Your task to perform on an android device: turn on the 24-hour format for clock Image 0: 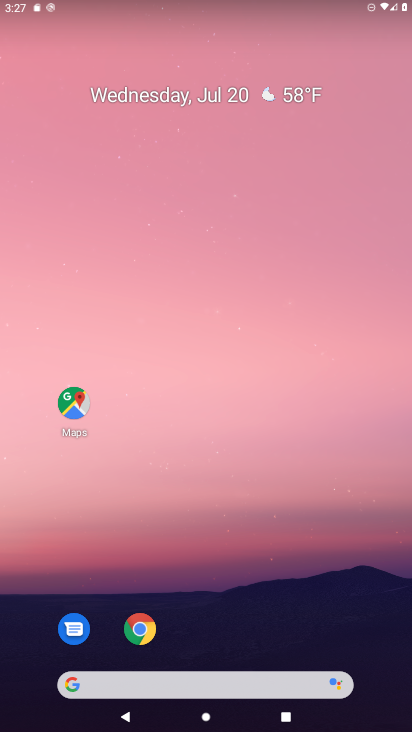
Step 0: drag from (300, 638) to (249, 166)
Your task to perform on an android device: turn on the 24-hour format for clock Image 1: 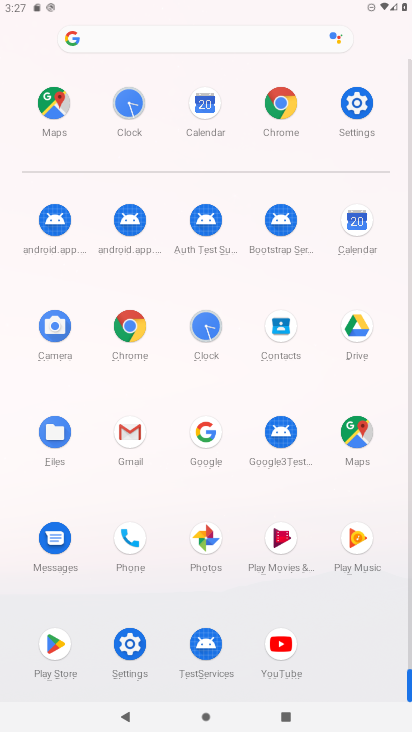
Step 1: click (198, 319)
Your task to perform on an android device: turn on the 24-hour format for clock Image 2: 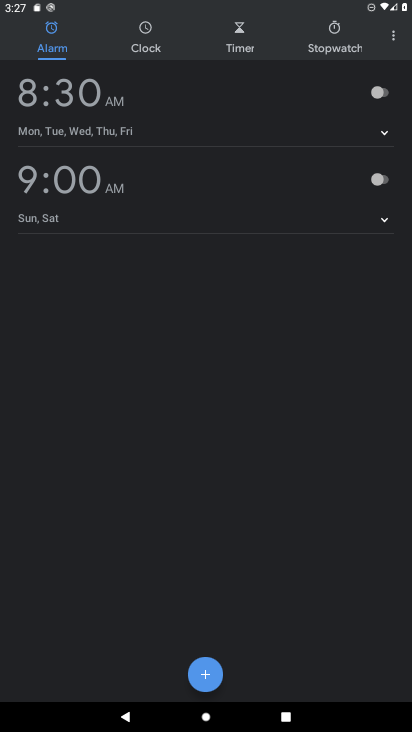
Step 2: click (395, 45)
Your task to perform on an android device: turn on the 24-hour format for clock Image 3: 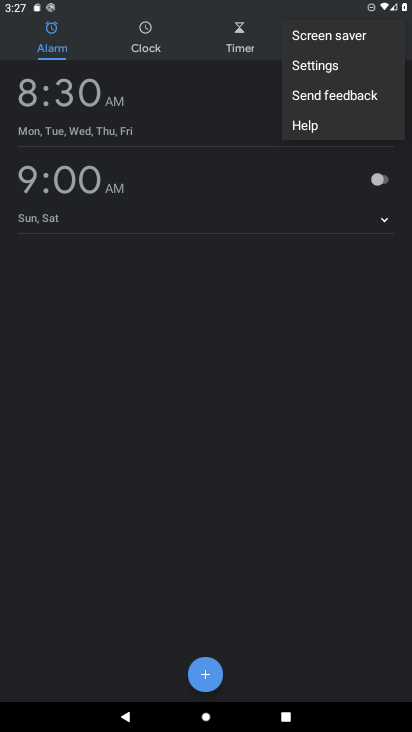
Step 3: click (334, 75)
Your task to perform on an android device: turn on the 24-hour format for clock Image 4: 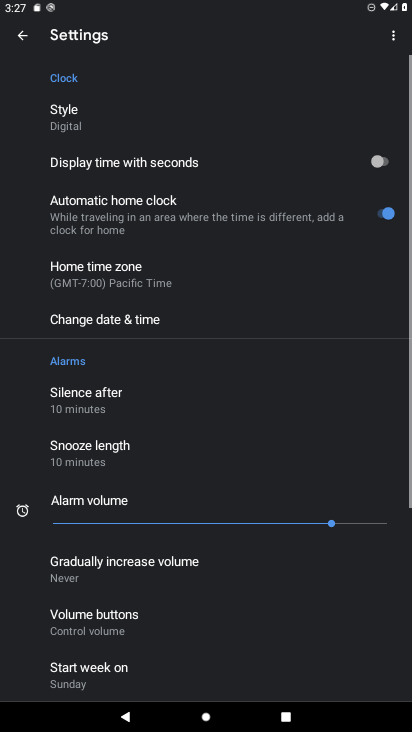
Step 4: drag from (347, 607) to (396, 259)
Your task to perform on an android device: turn on the 24-hour format for clock Image 5: 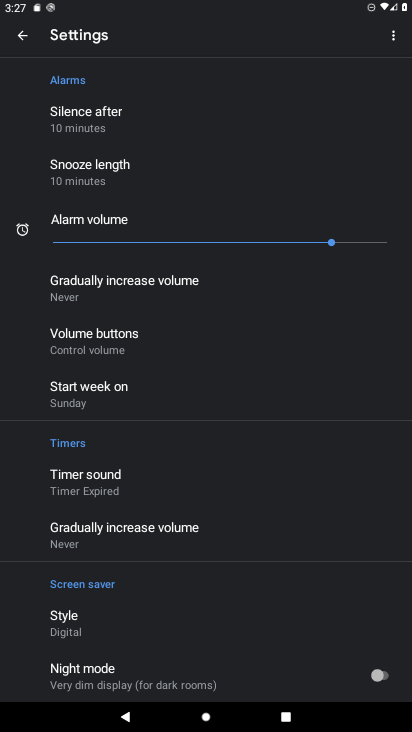
Step 5: drag from (107, 134) to (96, 452)
Your task to perform on an android device: turn on the 24-hour format for clock Image 6: 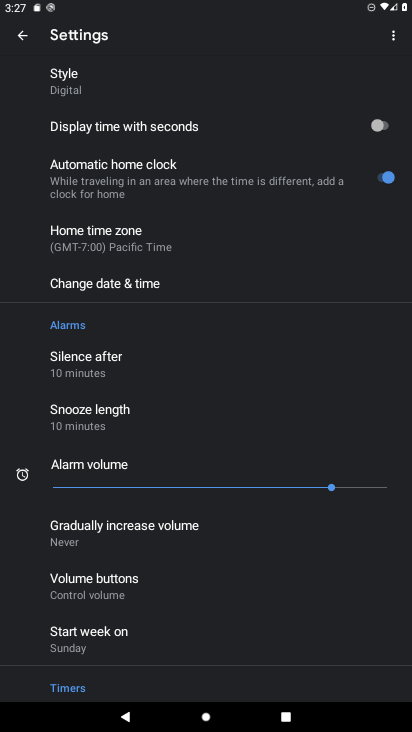
Step 6: click (118, 293)
Your task to perform on an android device: turn on the 24-hour format for clock Image 7: 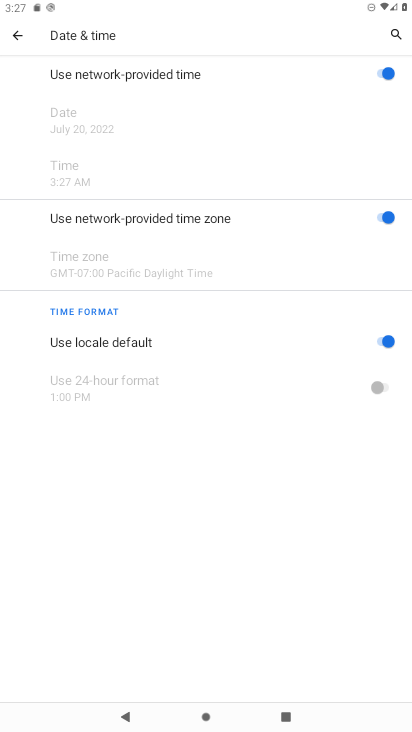
Step 7: click (387, 338)
Your task to perform on an android device: turn on the 24-hour format for clock Image 8: 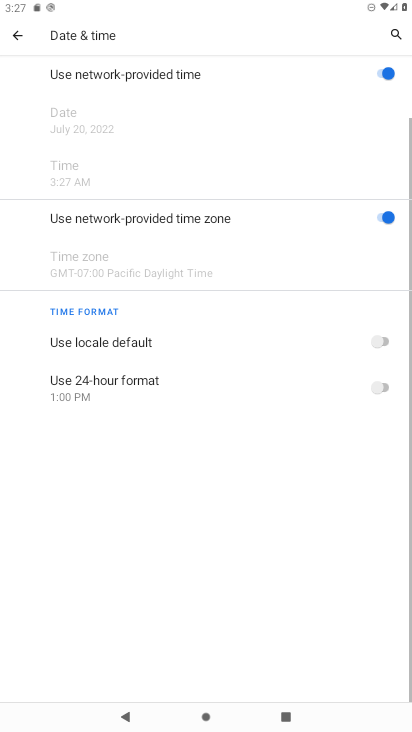
Step 8: click (377, 381)
Your task to perform on an android device: turn on the 24-hour format for clock Image 9: 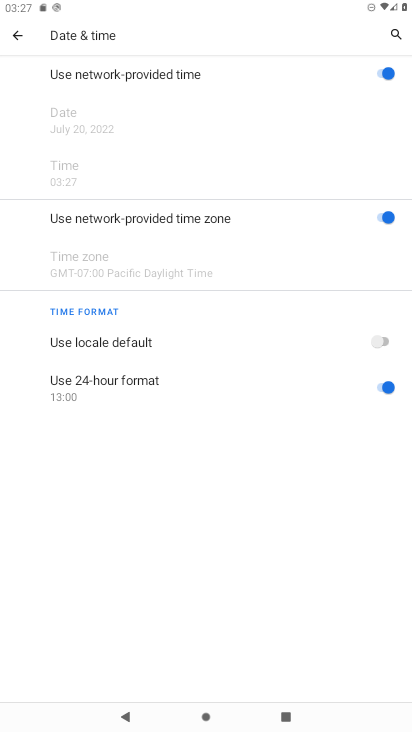
Step 9: task complete